Your task to perform on an android device: change the clock display to analog Image 0: 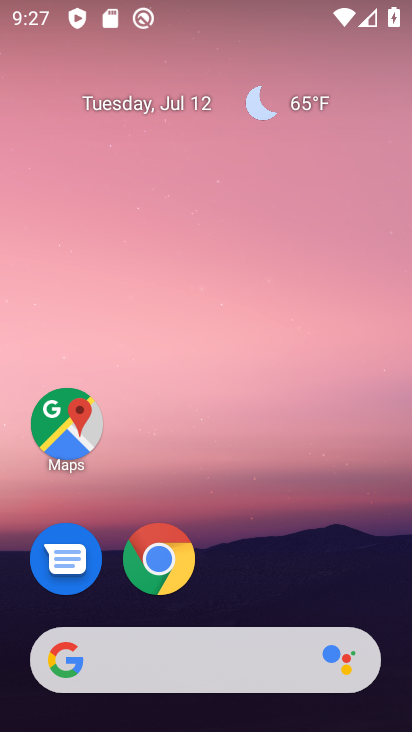
Step 0: drag from (362, 593) to (362, 159)
Your task to perform on an android device: change the clock display to analog Image 1: 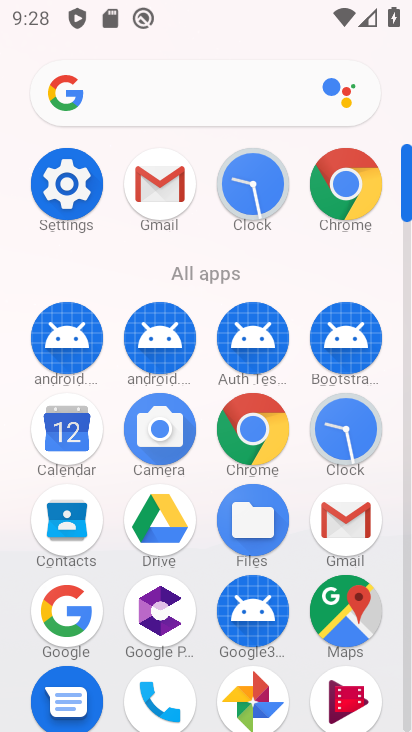
Step 1: click (353, 433)
Your task to perform on an android device: change the clock display to analog Image 2: 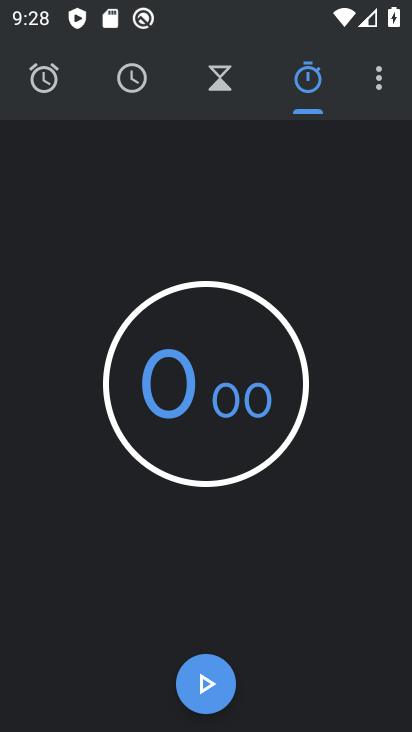
Step 2: click (378, 95)
Your task to perform on an android device: change the clock display to analog Image 3: 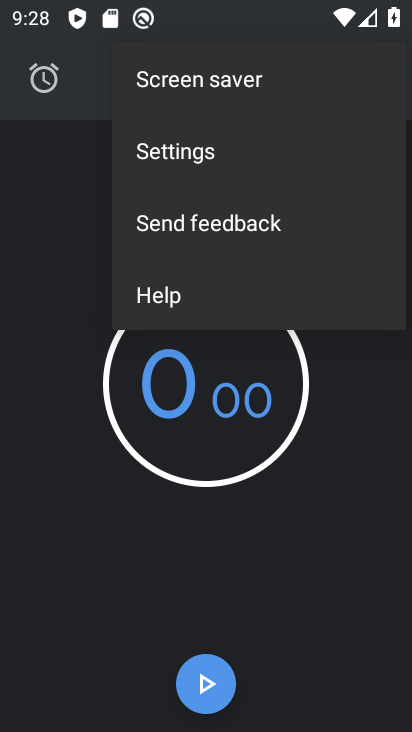
Step 3: click (280, 150)
Your task to perform on an android device: change the clock display to analog Image 4: 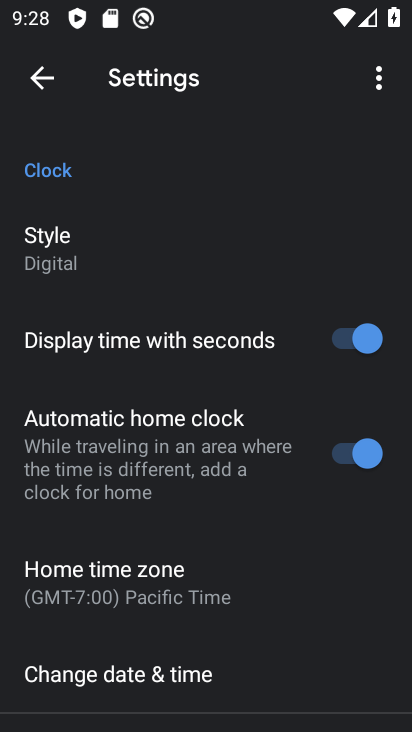
Step 4: drag from (296, 578) to (301, 352)
Your task to perform on an android device: change the clock display to analog Image 5: 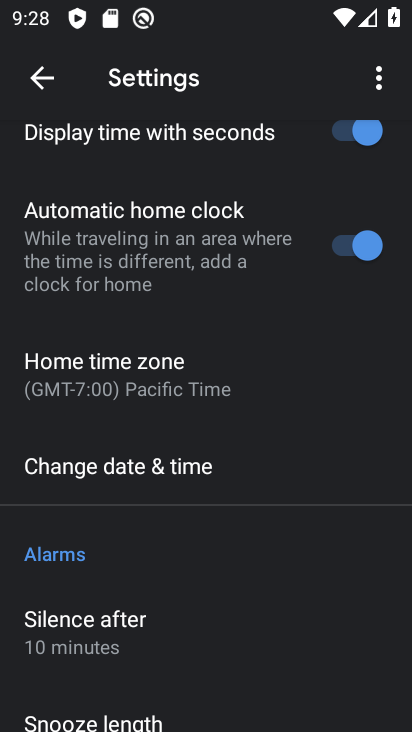
Step 5: drag from (325, 581) to (319, 413)
Your task to perform on an android device: change the clock display to analog Image 6: 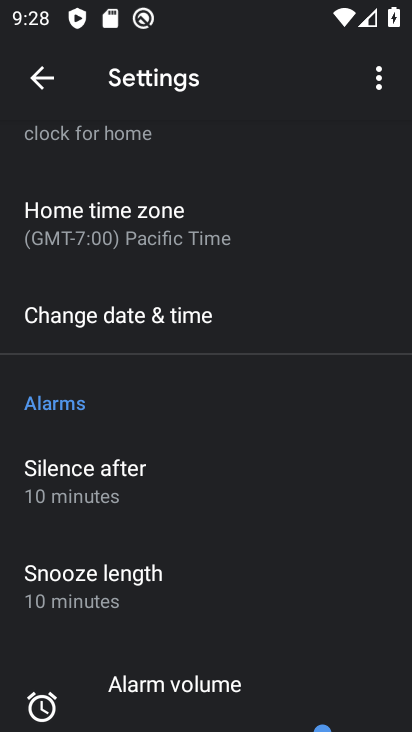
Step 6: drag from (324, 548) to (327, 312)
Your task to perform on an android device: change the clock display to analog Image 7: 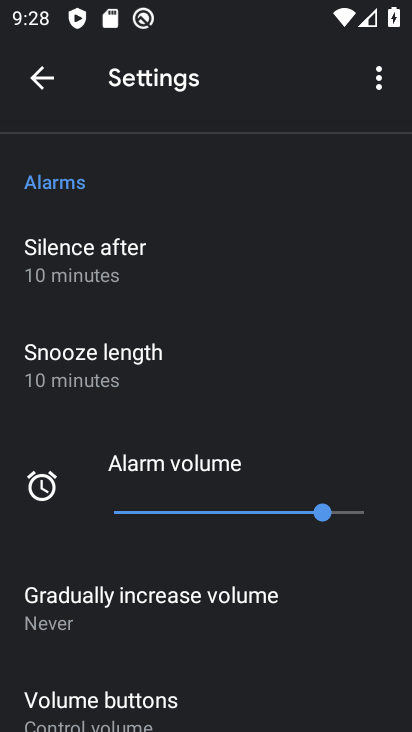
Step 7: drag from (347, 604) to (338, 368)
Your task to perform on an android device: change the clock display to analog Image 8: 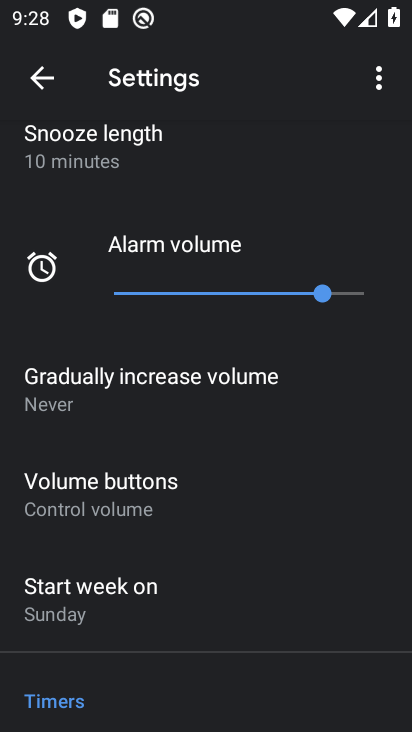
Step 8: drag from (354, 211) to (352, 397)
Your task to perform on an android device: change the clock display to analog Image 9: 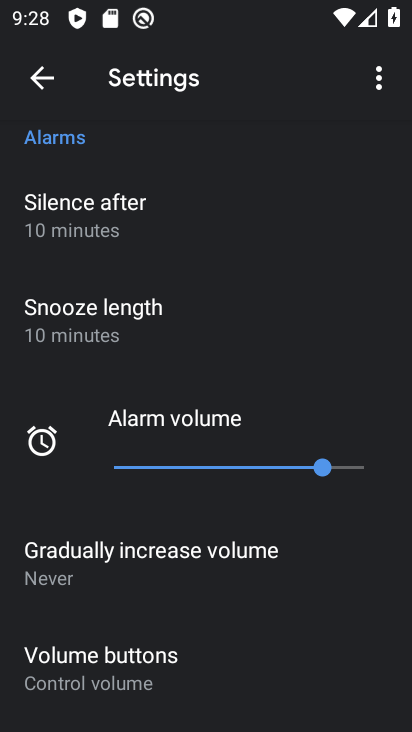
Step 9: drag from (308, 169) to (280, 390)
Your task to perform on an android device: change the clock display to analog Image 10: 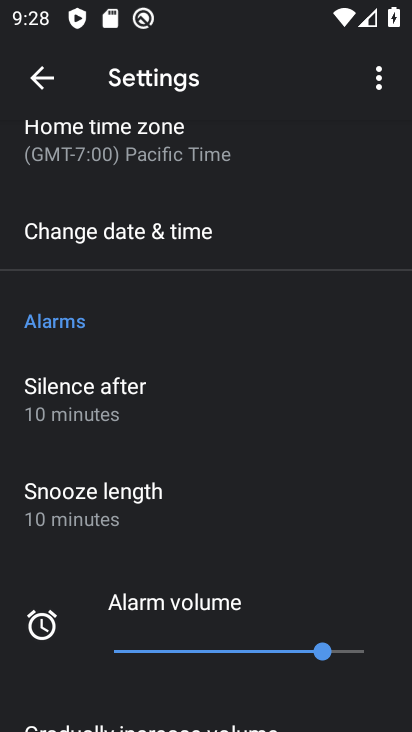
Step 10: drag from (273, 148) to (274, 373)
Your task to perform on an android device: change the clock display to analog Image 11: 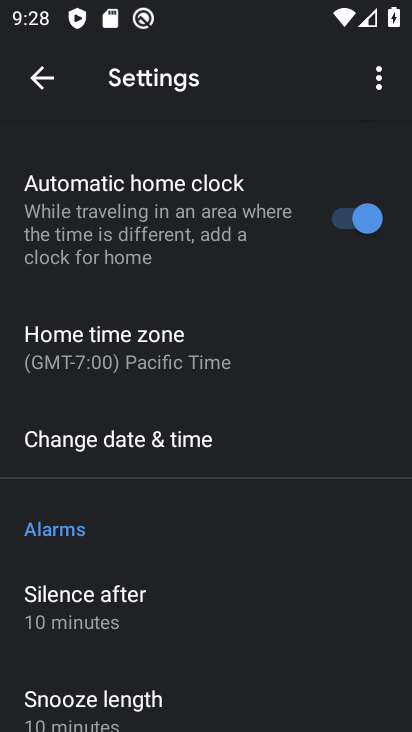
Step 11: drag from (286, 145) to (285, 358)
Your task to perform on an android device: change the clock display to analog Image 12: 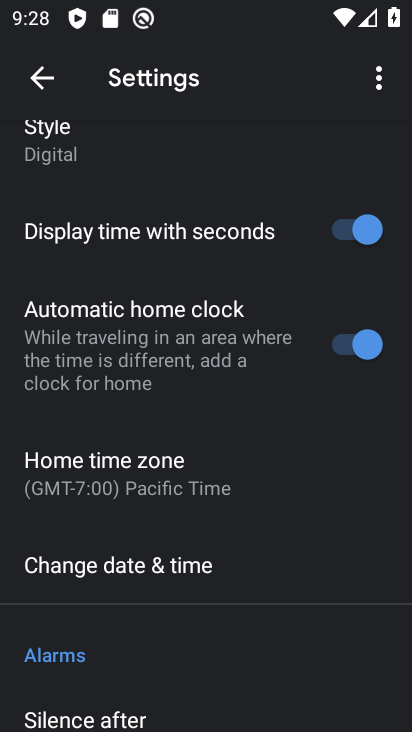
Step 12: click (61, 137)
Your task to perform on an android device: change the clock display to analog Image 13: 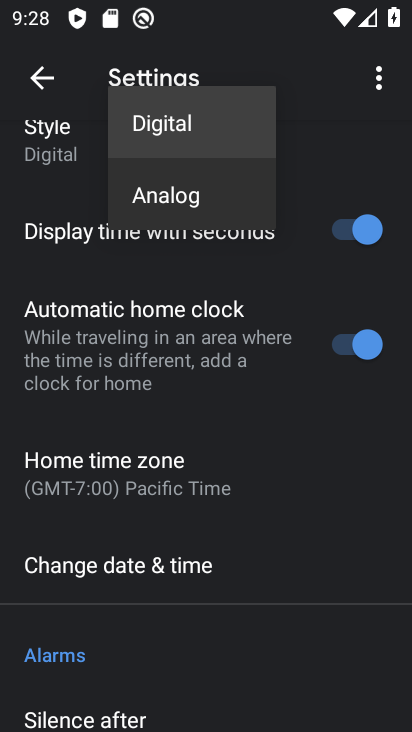
Step 13: click (190, 190)
Your task to perform on an android device: change the clock display to analog Image 14: 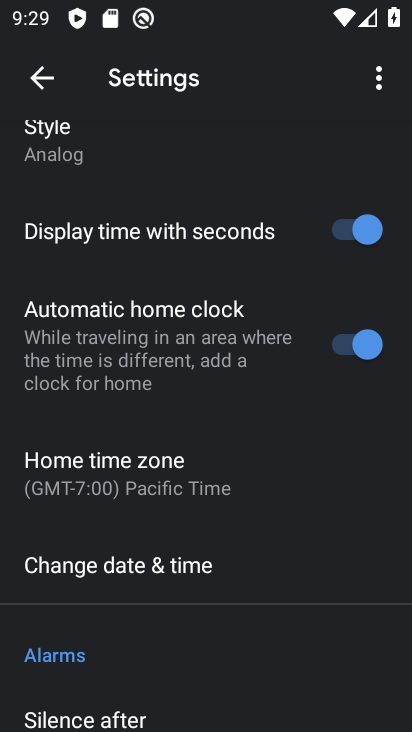
Step 14: task complete